Your task to perform on an android device: turn off airplane mode Image 0: 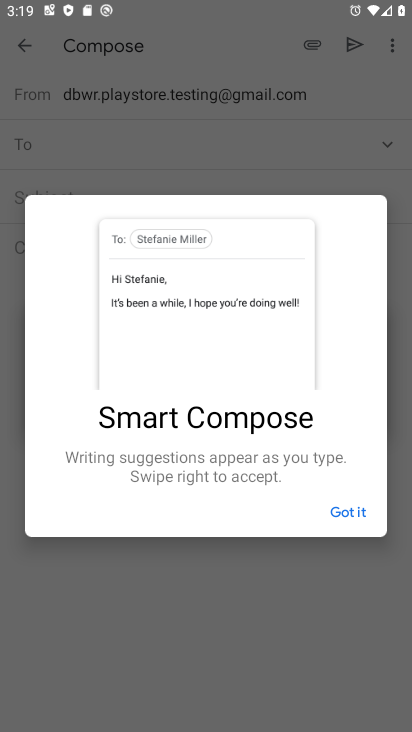
Step 0: press home button
Your task to perform on an android device: turn off airplane mode Image 1: 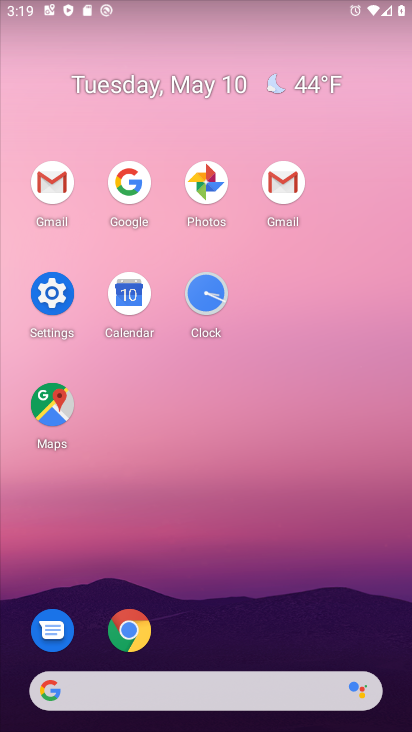
Step 1: click (66, 300)
Your task to perform on an android device: turn off airplane mode Image 2: 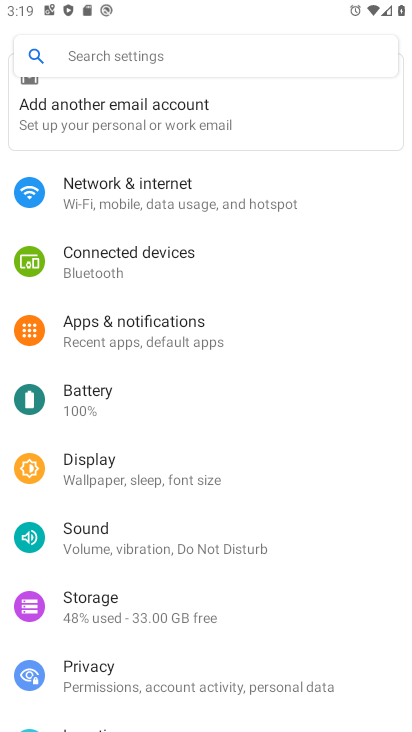
Step 2: click (244, 195)
Your task to perform on an android device: turn off airplane mode Image 3: 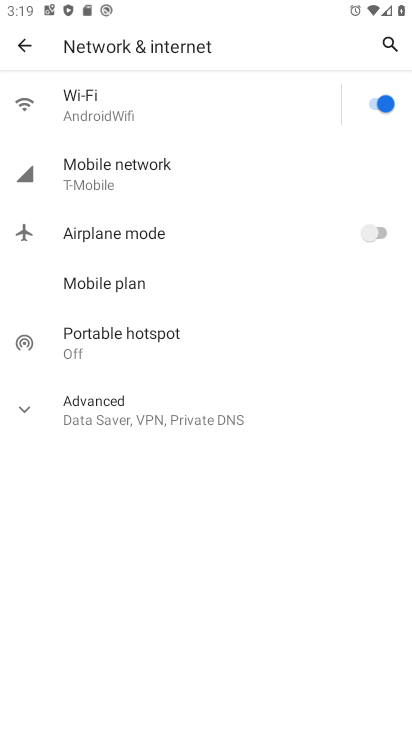
Step 3: task complete